Your task to perform on an android device: Go to calendar. Show me events next week Image 0: 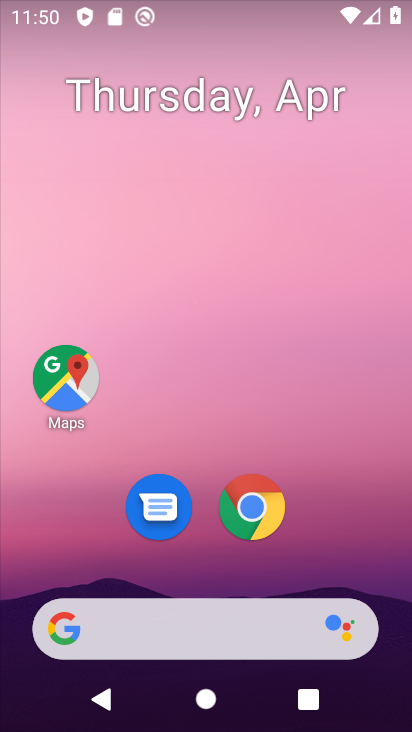
Step 0: drag from (188, 625) to (150, 57)
Your task to perform on an android device: Go to calendar. Show me events next week Image 1: 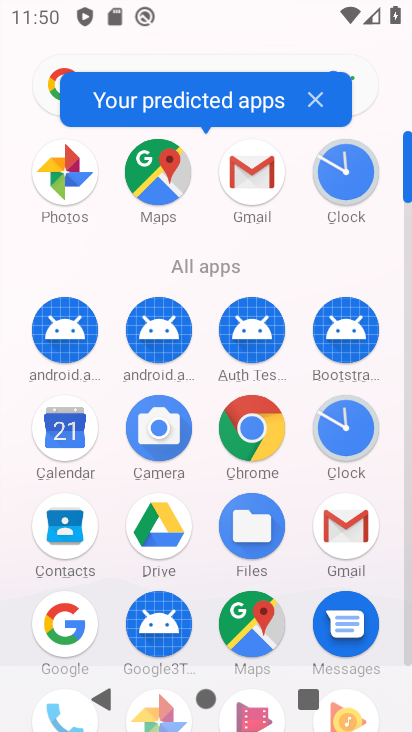
Step 1: click (64, 442)
Your task to perform on an android device: Go to calendar. Show me events next week Image 2: 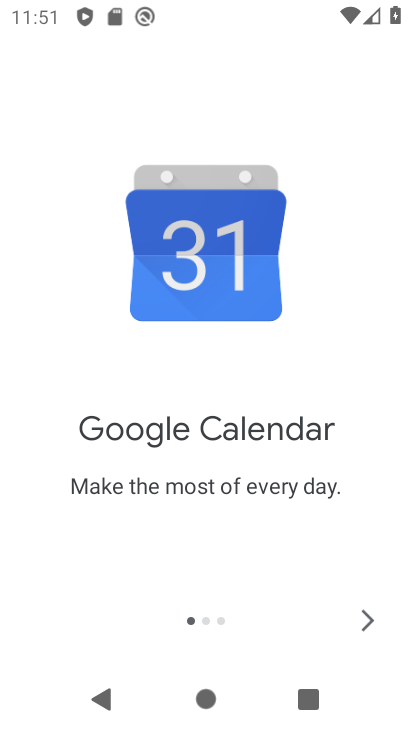
Step 2: click (366, 611)
Your task to perform on an android device: Go to calendar. Show me events next week Image 3: 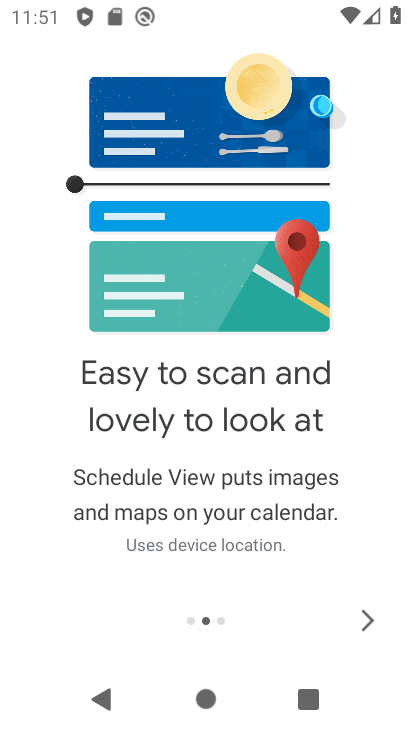
Step 3: click (366, 611)
Your task to perform on an android device: Go to calendar. Show me events next week Image 4: 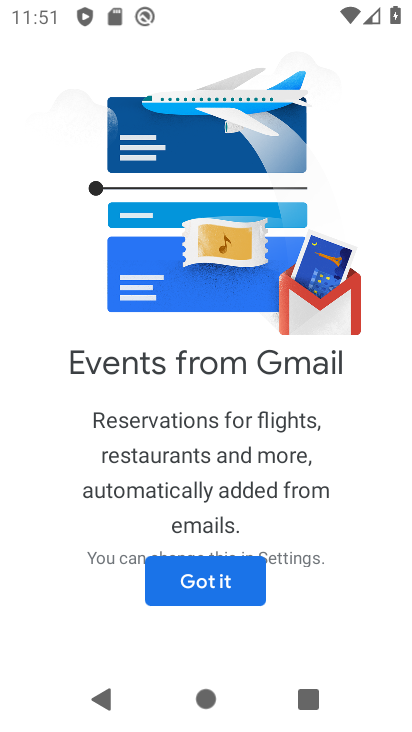
Step 4: click (183, 583)
Your task to perform on an android device: Go to calendar. Show me events next week Image 5: 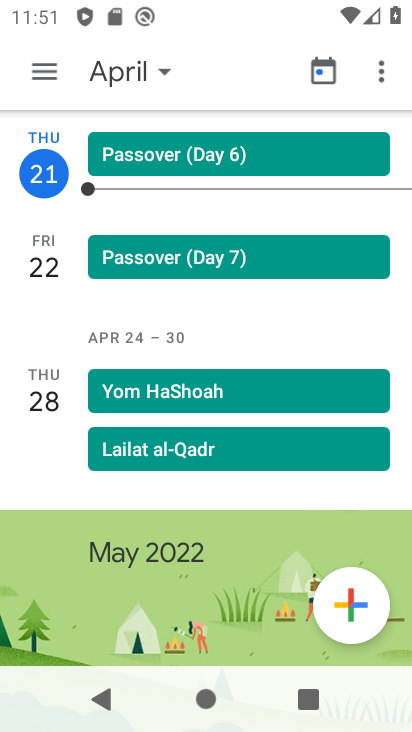
Step 5: click (49, 83)
Your task to perform on an android device: Go to calendar. Show me events next week Image 6: 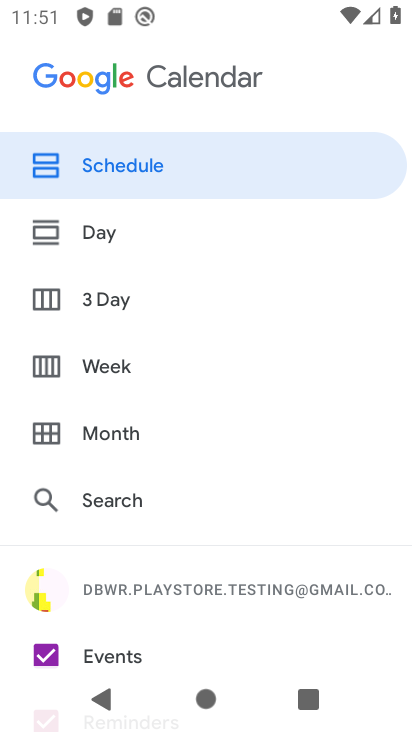
Step 6: click (73, 357)
Your task to perform on an android device: Go to calendar. Show me events next week Image 7: 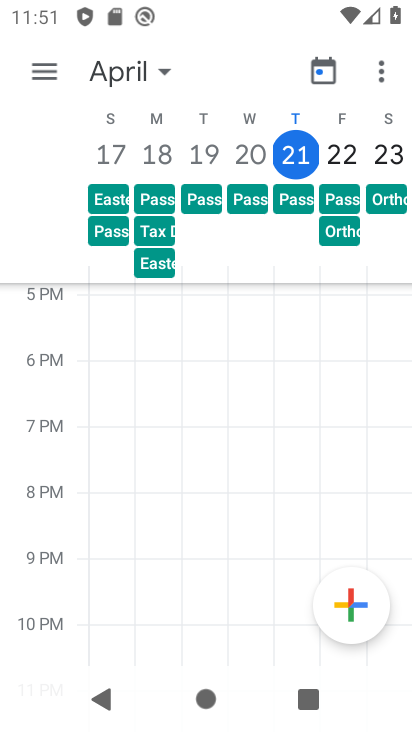
Step 7: task complete